Your task to perform on an android device: change timer sound Image 0: 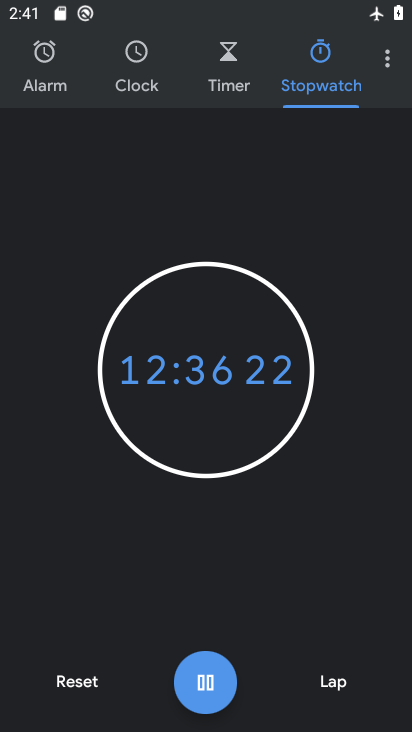
Step 0: click (380, 71)
Your task to perform on an android device: change timer sound Image 1: 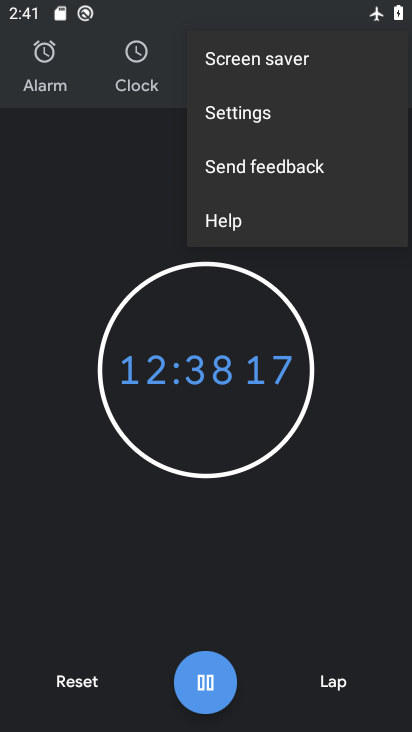
Step 1: click (266, 104)
Your task to perform on an android device: change timer sound Image 2: 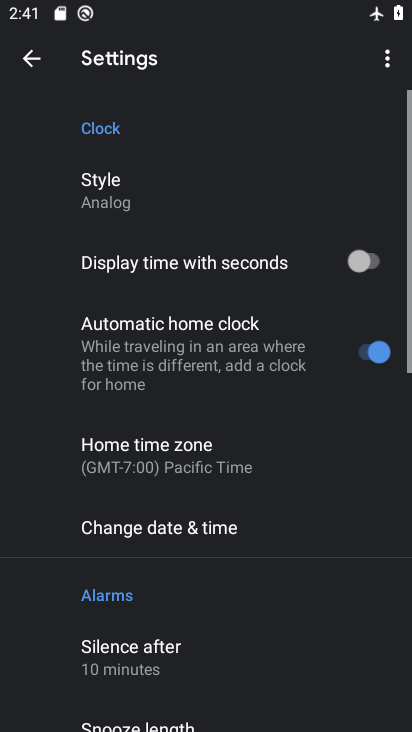
Step 2: drag from (221, 619) to (227, 170)
Your task to perform on an android device: change timer sound Image 3: 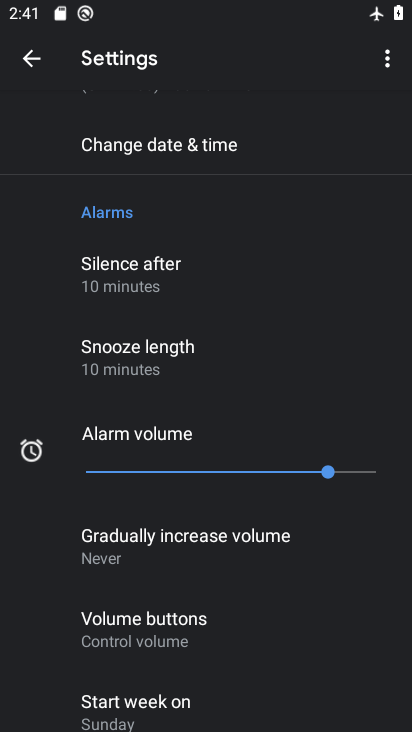
Step 3: drag from (225, 674) to (193, 258)
Your task to perform on an android device: change timer sound Image 4: 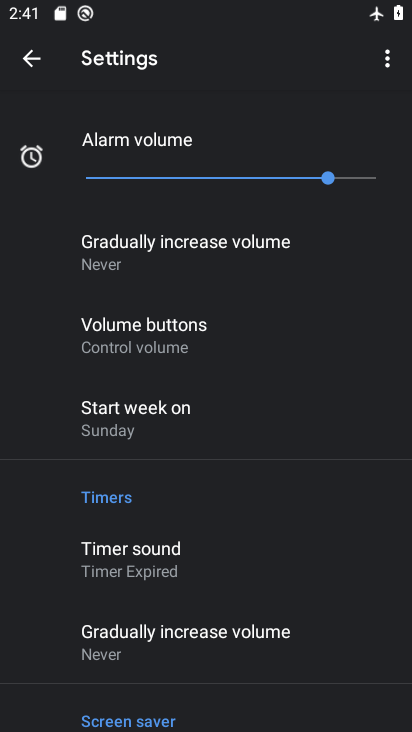
Step 4: click (159, 558)
Your task to perform on an android device: change timer sound Image 5: 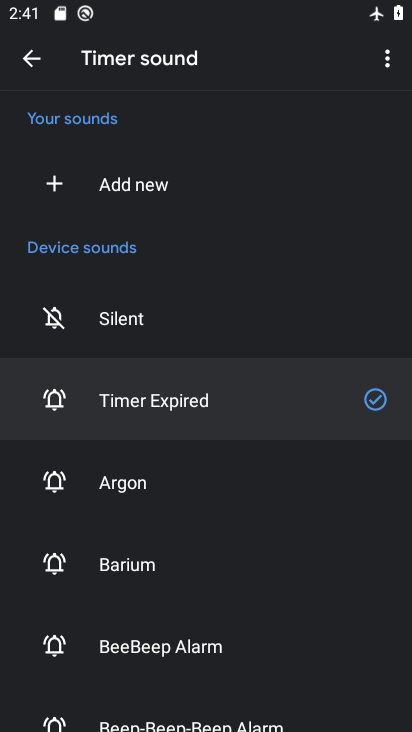
Step 5: click (220, 485)
Your task to perform on an android device: change timer sound Image 6: 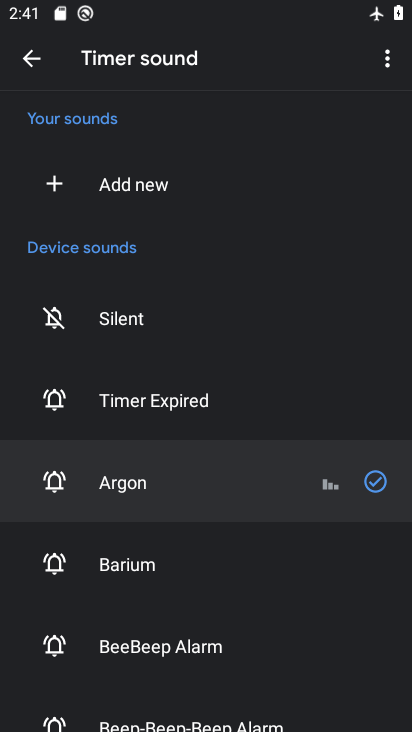
Step 6: task complete